Your task to perform on an android device: Do I have any events today? Image 0: 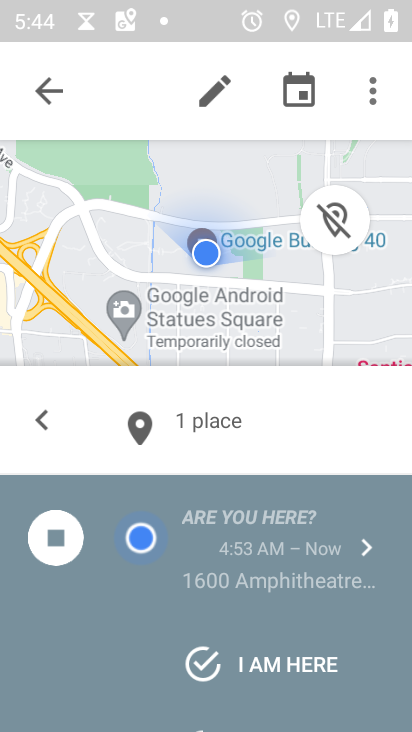
Step 0: press home button
Your task to perform on an android device: Do I have any events today? Image 1: 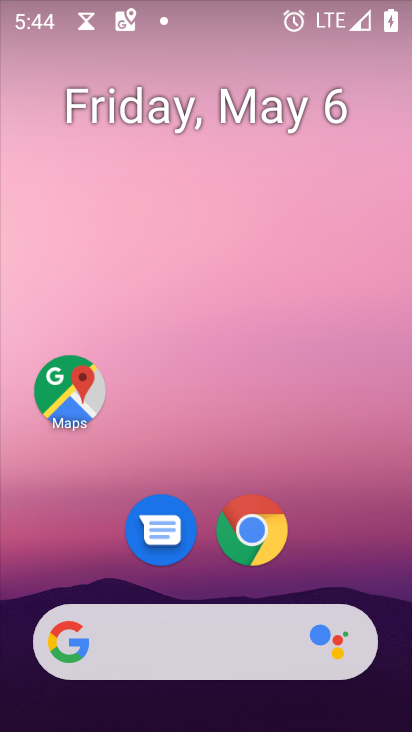
Step 1: drag from (350, 526) to (167, 5)
Your task to perform on an android device: Do I have any events today? Image 2: 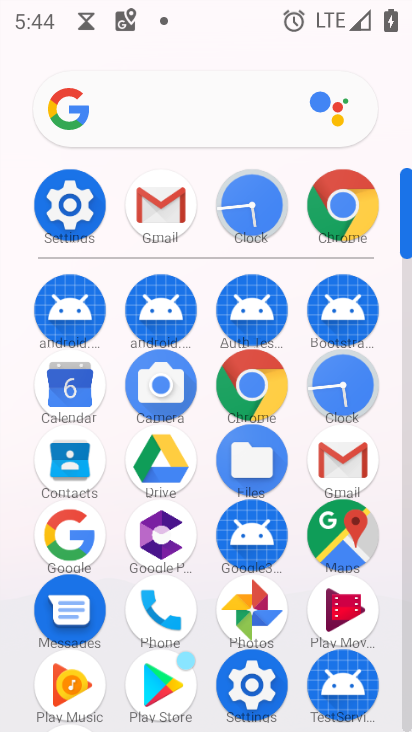
Step 2: click (65, 398)
Your task to perform on an android device: Do I have any events today? Image 3: 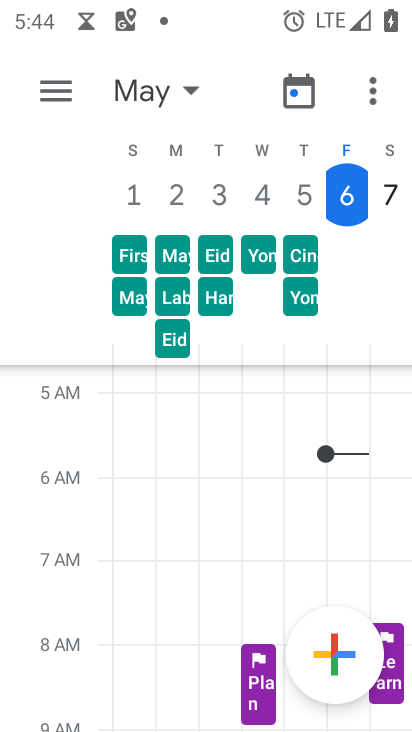
Step 3: task complete